Your task to perform on an android device: Open network settings Image 0: 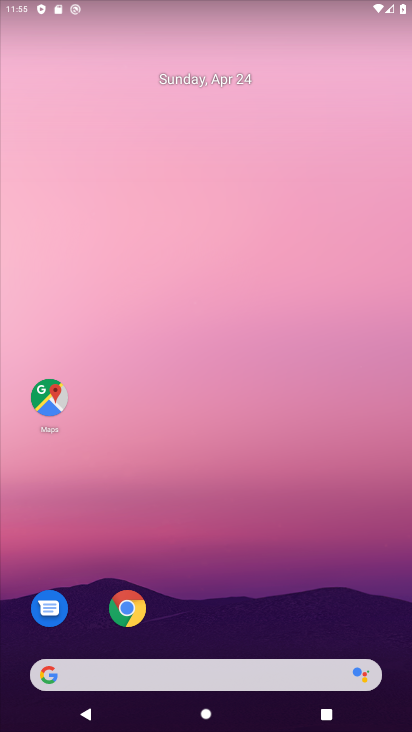
Step 0: drag from (232, 727) to (203, 117)
Your task to perform on an android device: Open network settings Image 1: 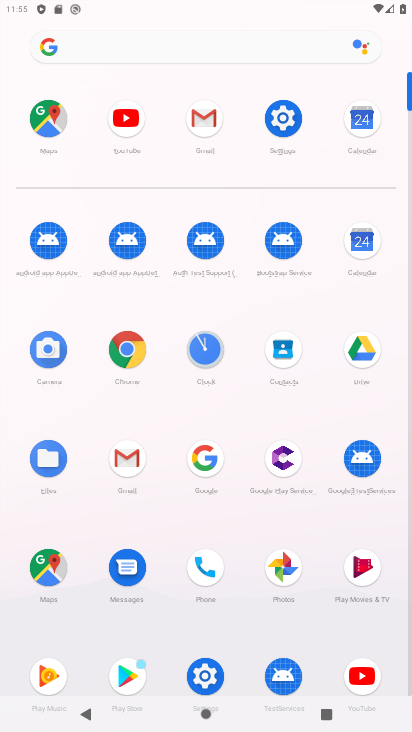
Step 1: click (202, 671)
Your task to perform on an android device: Open network settings Image 2: 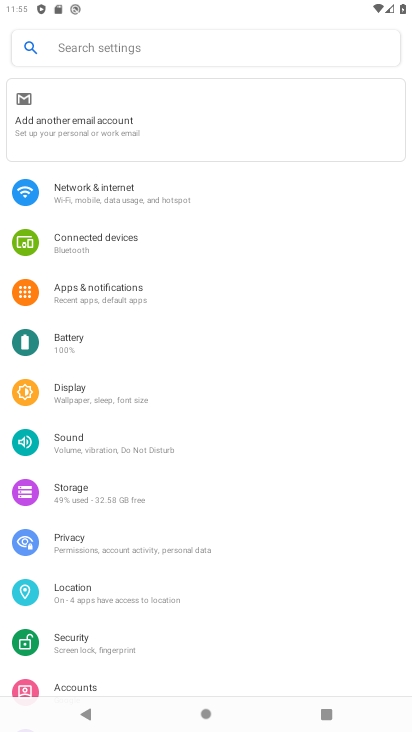
Step 2: click (113, 189)
Your task to perform on an android device: Open network settings Image 3: 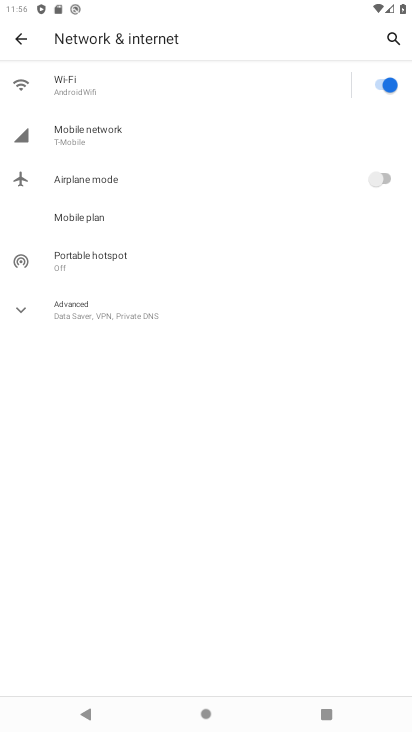
Step 3: task complete